Your task to perform on an android device: choose inbox layout in the gmail app Image 0: 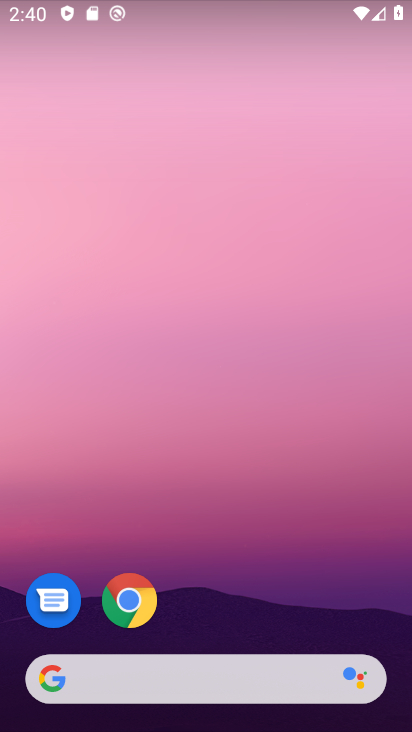
Step 0: drag from (224, 603) to (226, 199)
Your task to perform on an android device: choose inbox layout in the gmail app Image 1: 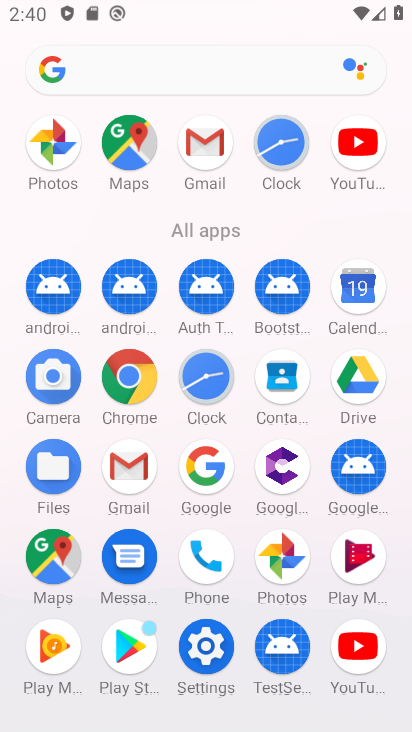
Step 1: click (121, 466)
Your task to perform on an android device: choose inbox layout in the gmail app Image 2: 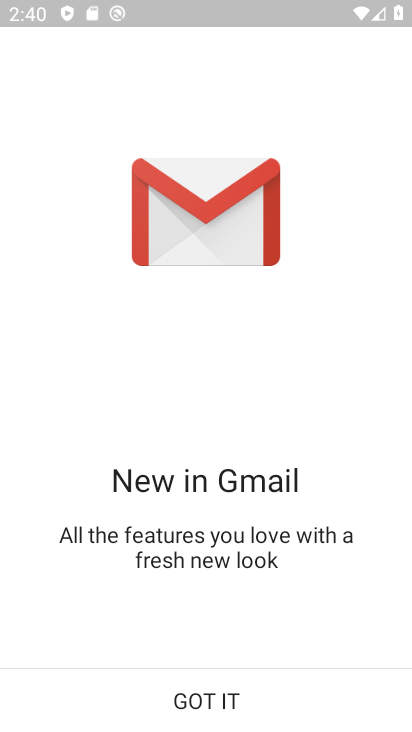
Step 2: click (212, 703)
Your task to perform on an android device: choose inbox layout in the gmail app Image 3: 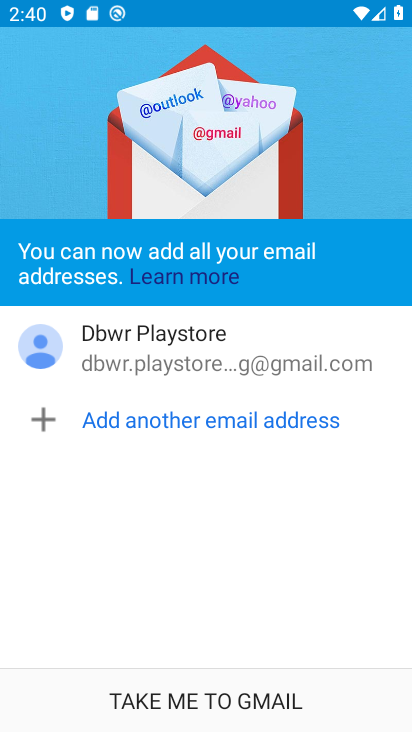
Step 3: click (200, 691)
Your task to perform on an android device: choose inbox layout in the gmail app Image 4: 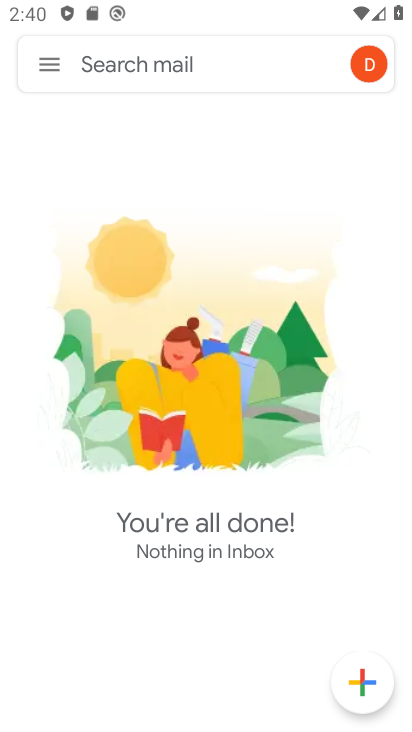
Step 4: click (34, 62)
Your task to perform on an android device: choose inbox layout in the gmail app Image 5: 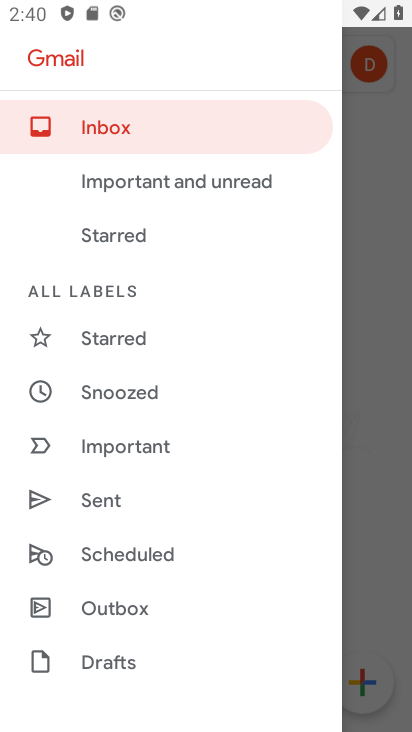
Step 5: drag from (199, 596) to (255, 210)
Your task to perform on an android device: choose inbox layout in the gmail app Image 6: 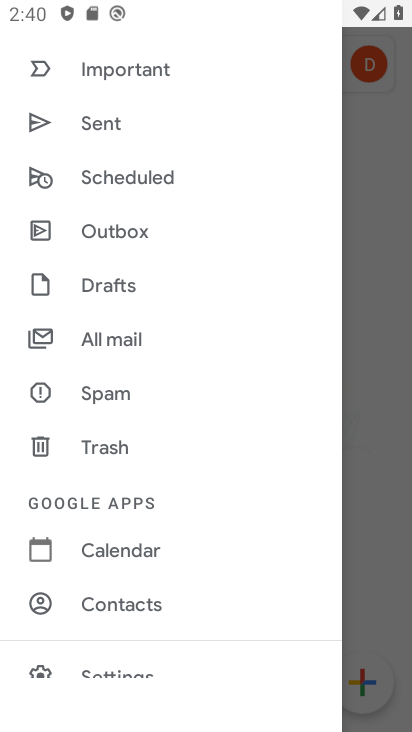
Step 6: drag from (167, 517) to (207, 214)
Your task to perform on an android device: choose inbox layout in the gmail app Image 7: 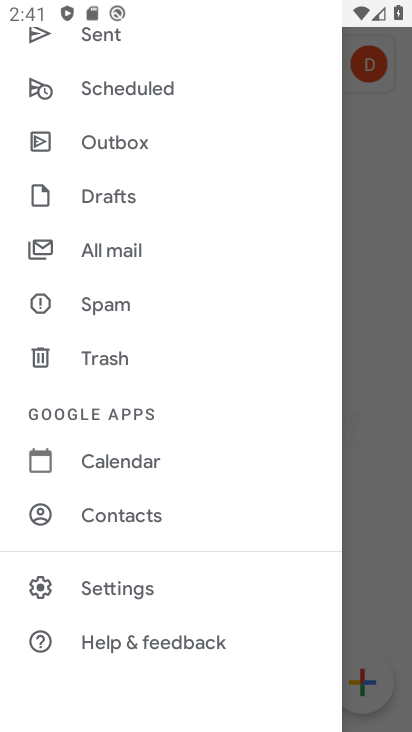
Step 7: click (144, 592)
Your task to perform on an android device: choose inbox layout in the gmail app Image 8: 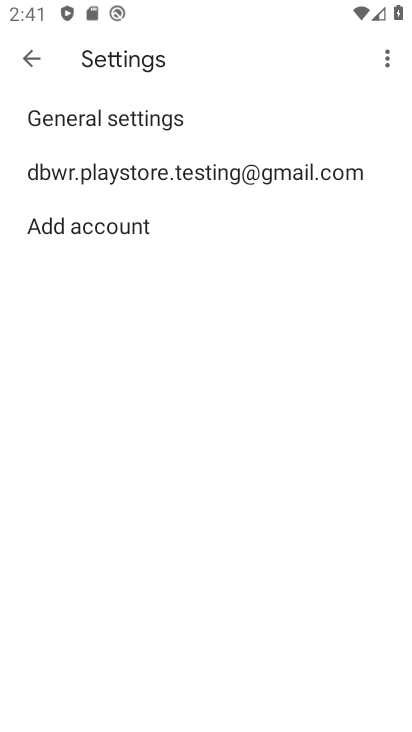
Step 8: click (211, 181)
Your task to perform on an android device: choose inbox layout in the gmail app Image 9: 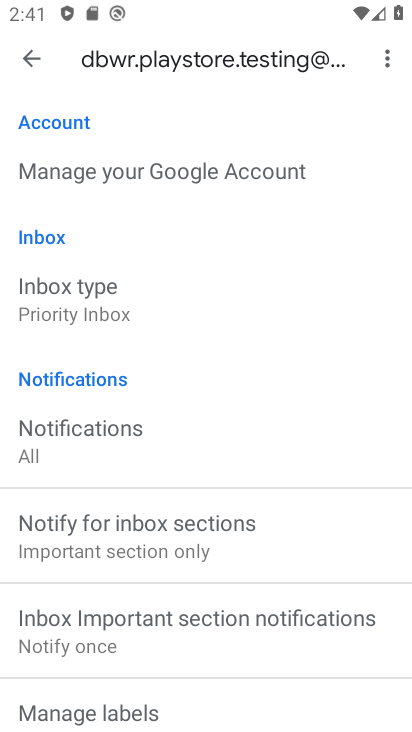
Step 9: click (76, 314)
Your task to perform on an android device: choose inbox layout in the gmail app Image 10: 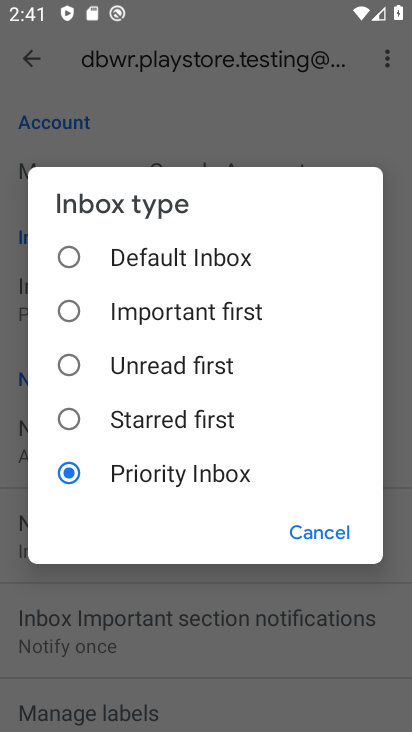
Step 10: click (119, 251)
Your task to perform on an android device: choose inbox layout in the gmail app Image 11: 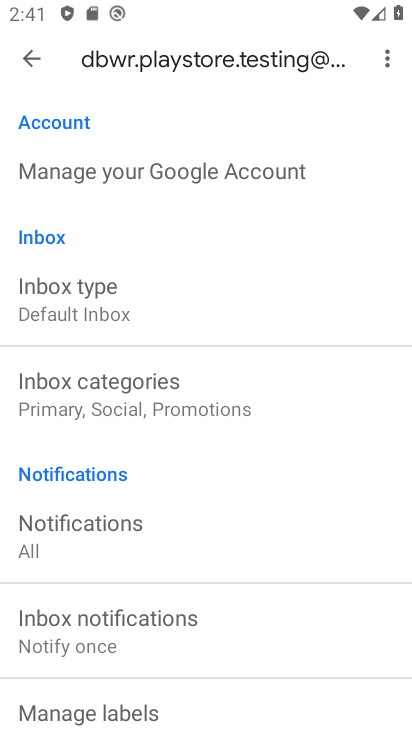
Step 11: task complete